Your task to perform on an android device: check out phone information Image 0: 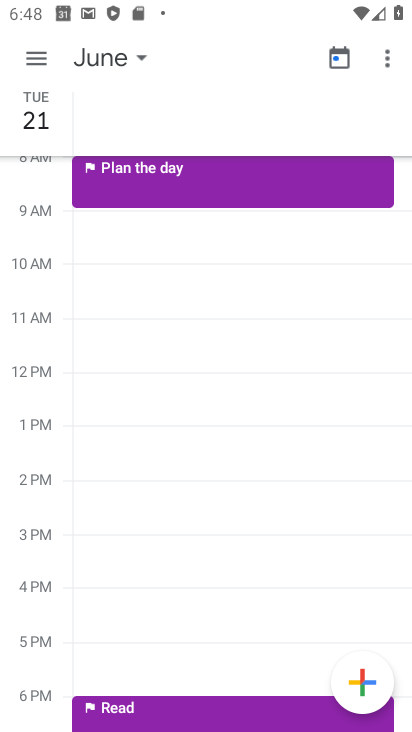
Step 0: press home button
Your task to perform on an android device: check out phone information Image 1: 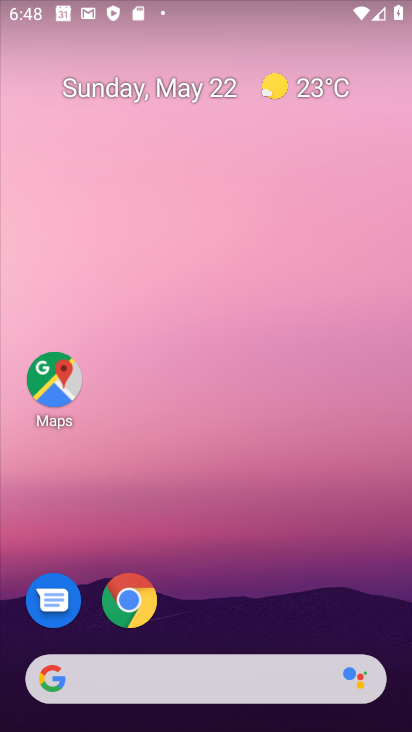
Step 1: drag from (398, 651) to (323, 47)
Your task to perform on an android device: check out phone information Image 2: 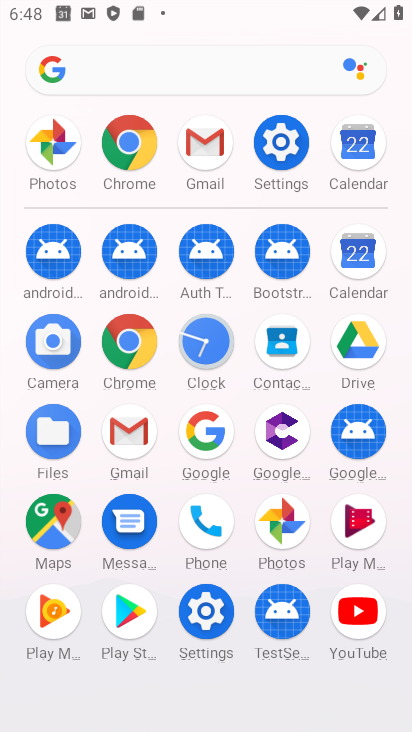
Step 2: click (276, 148)
Your task to perform on an android device: check out phone information Image 3: 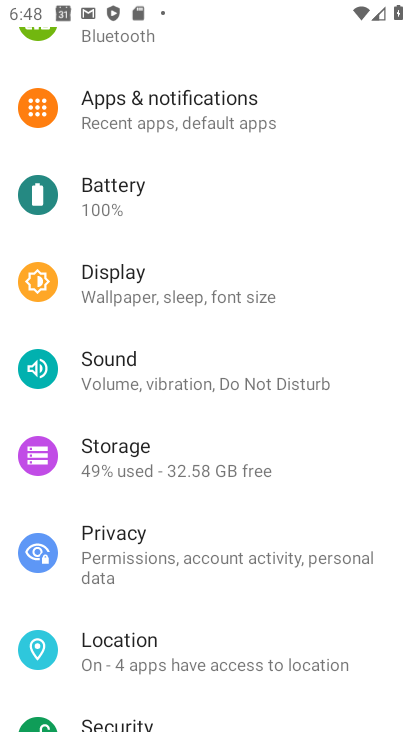
Step 3: drag from (189, 697) to (303, 46)
Your task to perform on an android device: check out phone information Image 4: 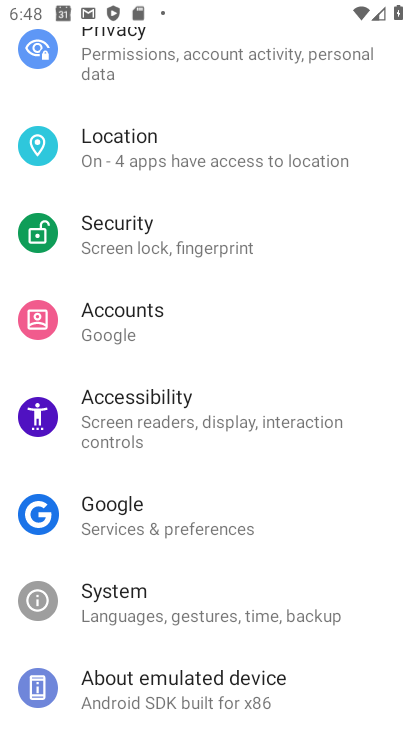
Step 4: click (179, 709)
Your task to perform on an android device: check out phone information Image 5: 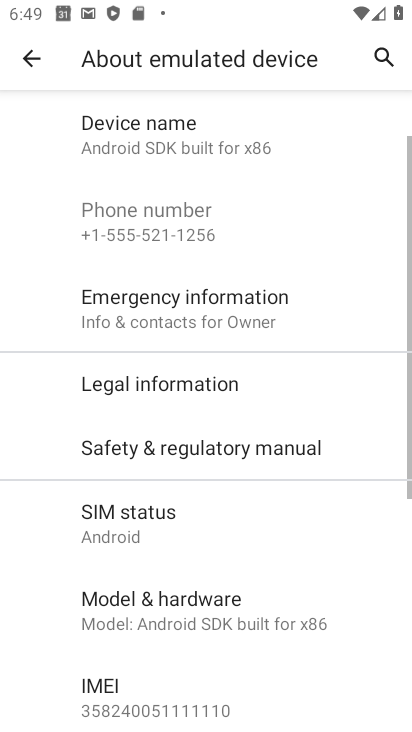
Step 5: task complete